Your task to perform on an android device: see tabs open on other devices in the chrome app Image 0: 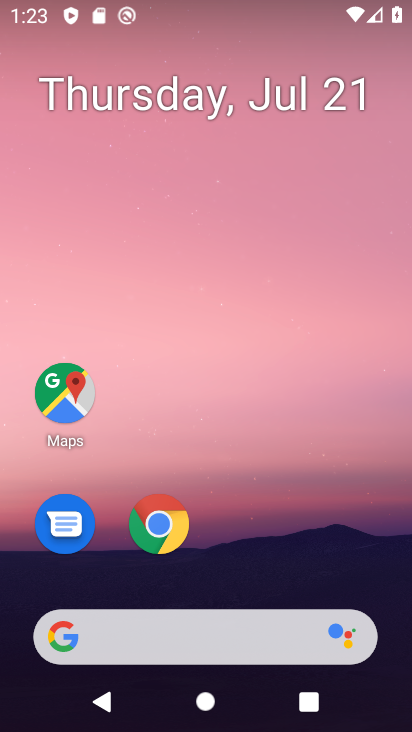
Step 0: drag from (249, 542) to (267, 98)
Your task to perform on an android device: see tabs open on other devices in the chrome app Image 1: 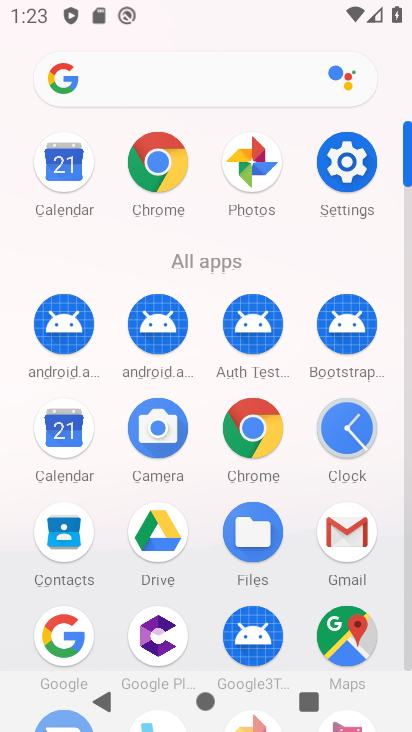
Step 1: click (167, 160)
Your task to perform on an android device: see tabs open on other devices in the chrome app Image 2: 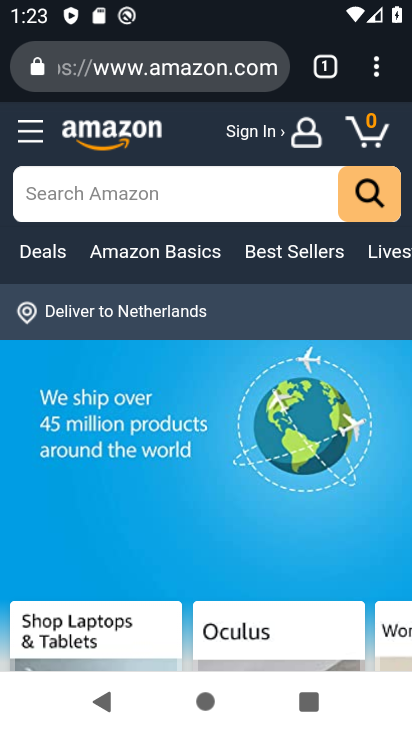
Step 2: click (377, 63)
Your task to perform on an android device: see tabs open on other devices in the chrome app Image 3: 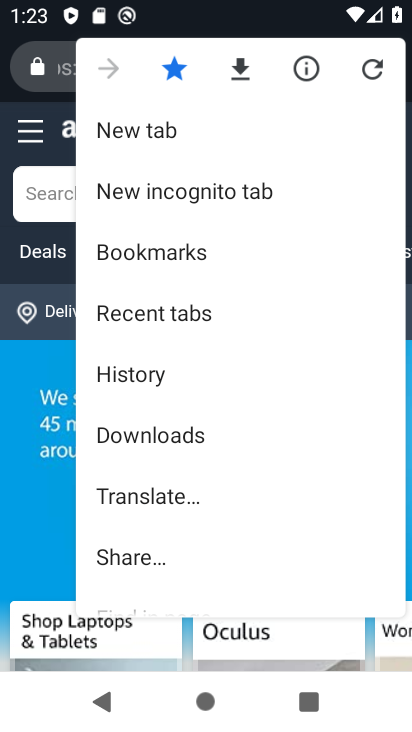
Step 3: click (174, 309)
Your task to perform on an android device: see tabs open on other devices in the chrome app Image 4: 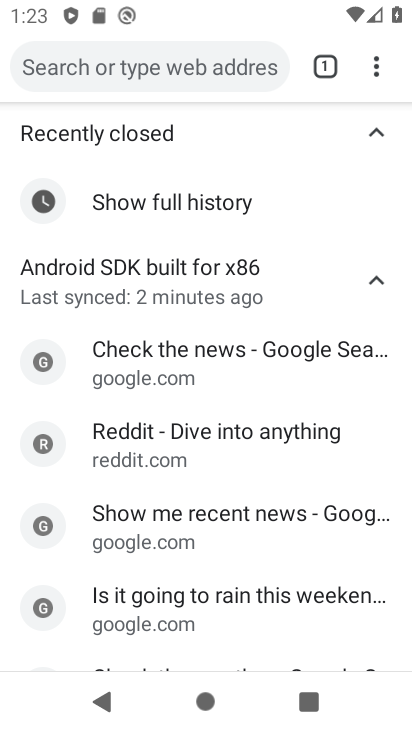
Step 4: task complete